Your task to perform on an android device: move an email to a new category in the gmail app Image 0: 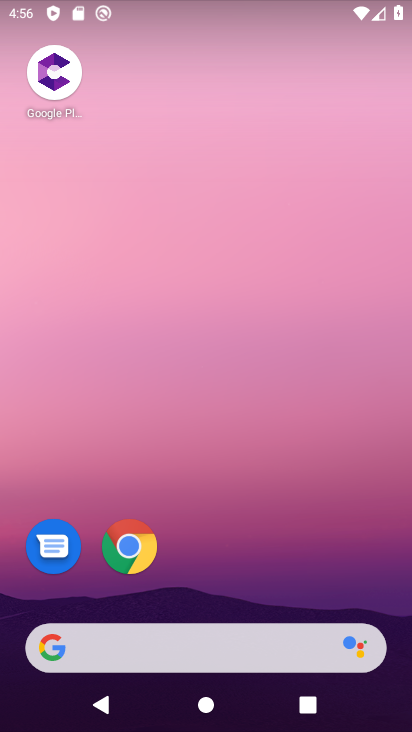
Step 0: drag from (234, 553) to (234, 49)
Your task to perform on an android device: move an email to a new category in the gmail app Image 1: 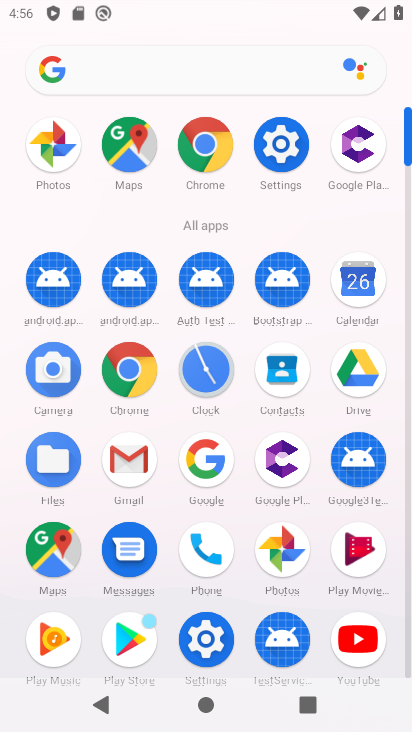
Step 1: click (123, 456)
Your task to perform on an android device: move an email to a new category in the gmail app Image 2: 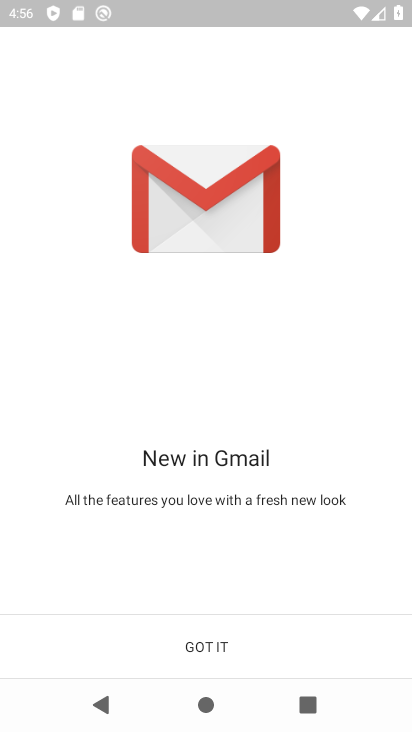
Step 2: click (217, 646)
Your task to perform on an android device: move an email to a new category in the gmail app Image 3: 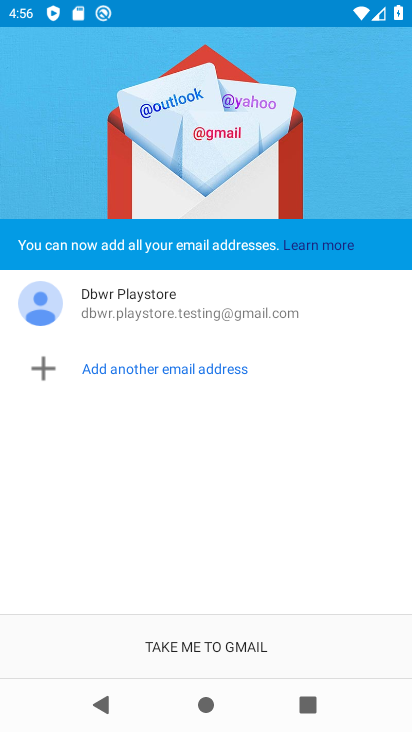
Step 3: click (221, 641)
Your task to perform on an android device: move an email to a new category in the gmail app Image 4: 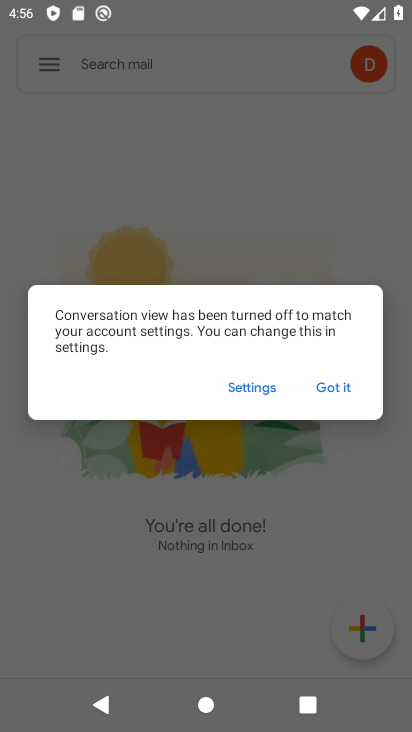
Step 4: click (344, 394)
Your task to perform on an android device: move an email to a new category in the gmail app Image 5: 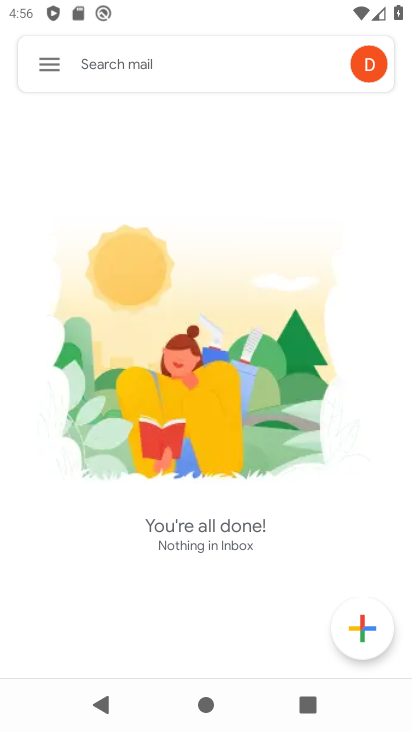
Step 5: task complete